Your task to perform on an android device: turn on bluetooth scan Image 0: 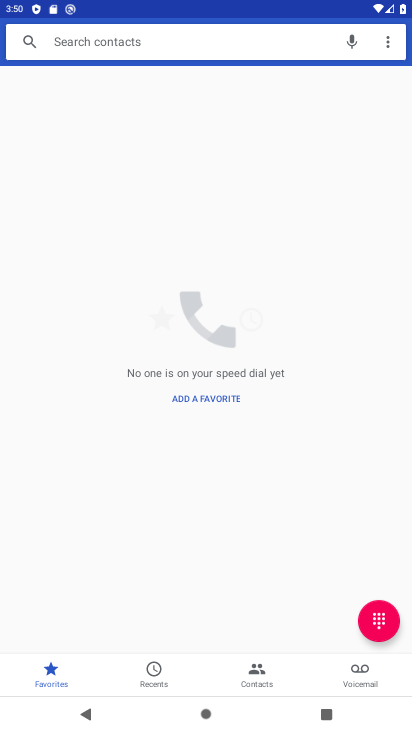
Step 0: press home button
Your task to perform on an android device: turn on bluetooth scan Image 1: 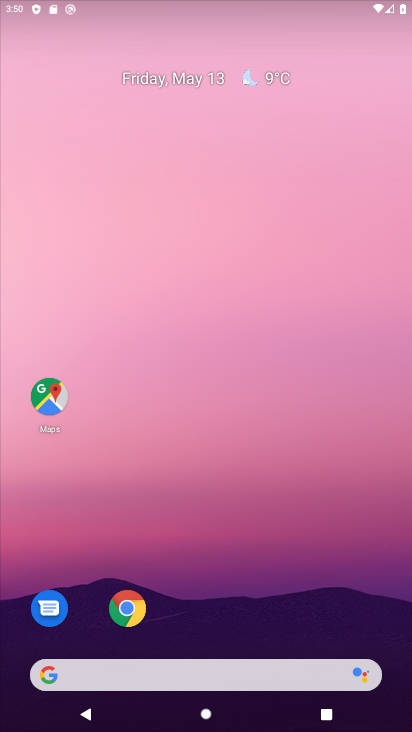
Step 1: drag from (263, 335) to (222, 19)
Your task to perform on an android device: turn on bluetooth scan Image 2: 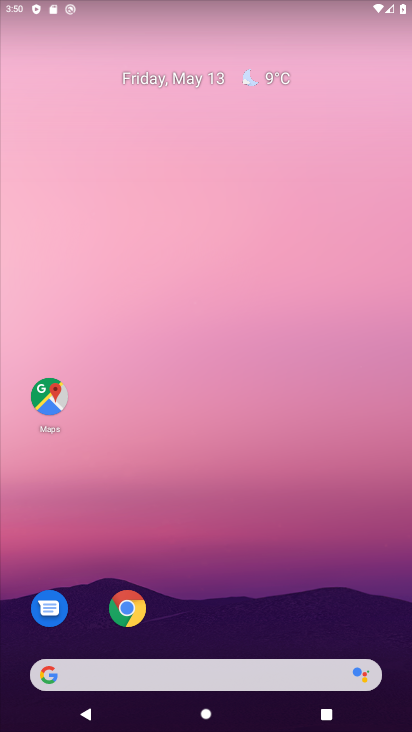
Step 2: drag from (251, 476) to (207, 0)
Your task to perform on an android device: turn on bluetooth scan Image 3: 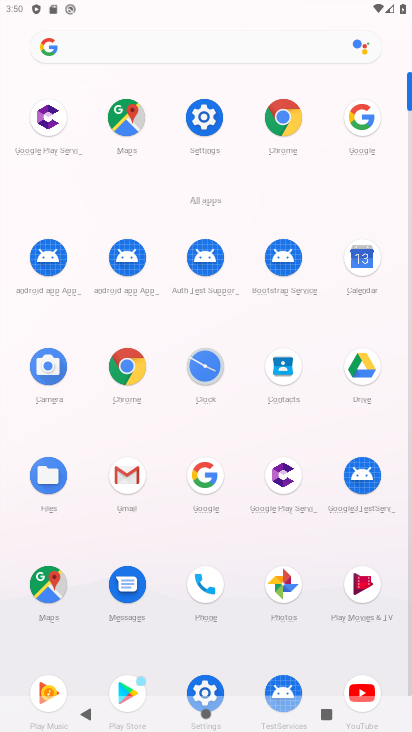
Step 3: click (217, 118)
Your task to perform on an android device: turn on bluetooth scan Image 4: 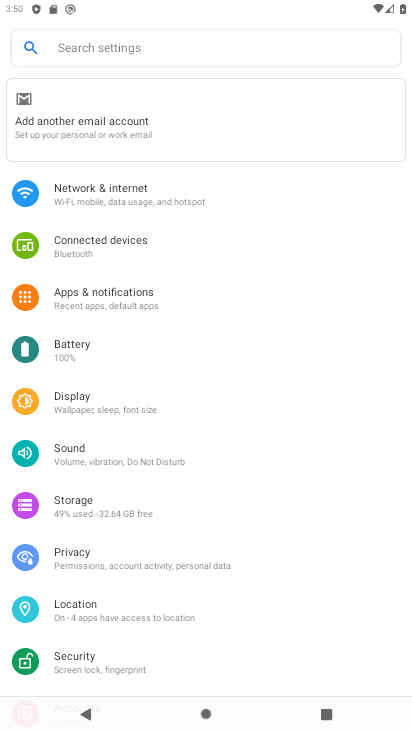
Step 4: click (197, 606)
Your task to perform on an android device: turn on bluetooth scan Image 5: 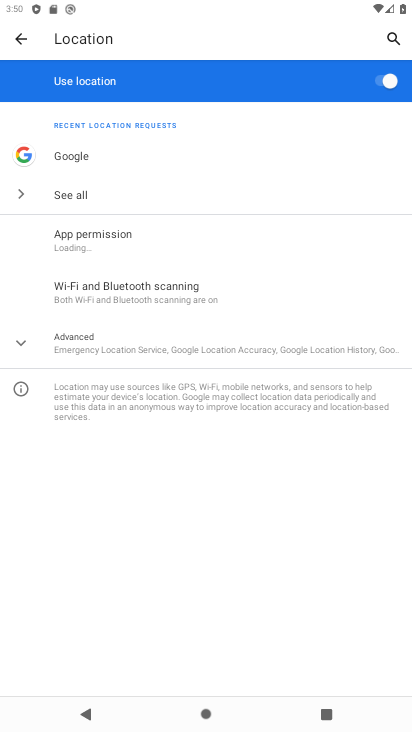
Step 5: click (207, 292)
Your task to perform on an android device: turn on bluetooth scan Image 6: 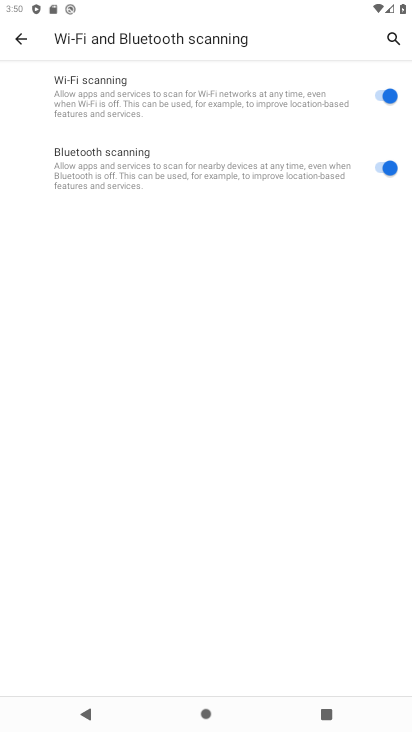
Step 6: task complete